Your task to perform on an android device: What's the weather today? Image 0: 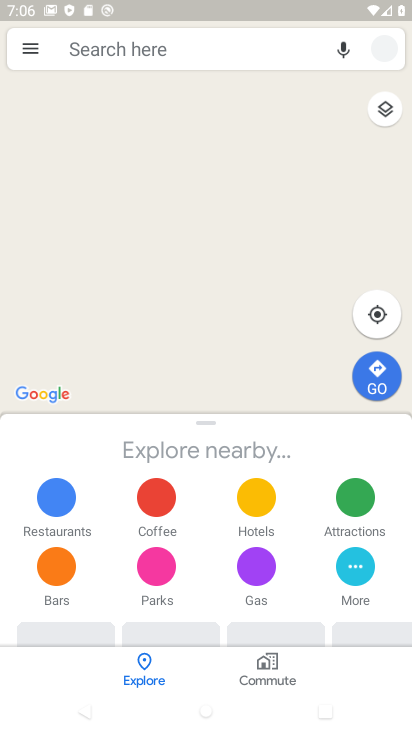
Step 0: press home button
Your task to perform on an android device: What's the weather today? Image 1: 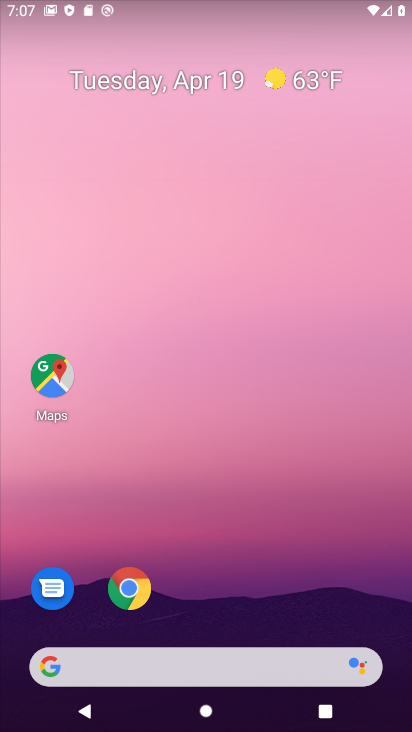
Step 1: click (236, 75)
Your task to perform on an android device: What's the weather today? Image 2: 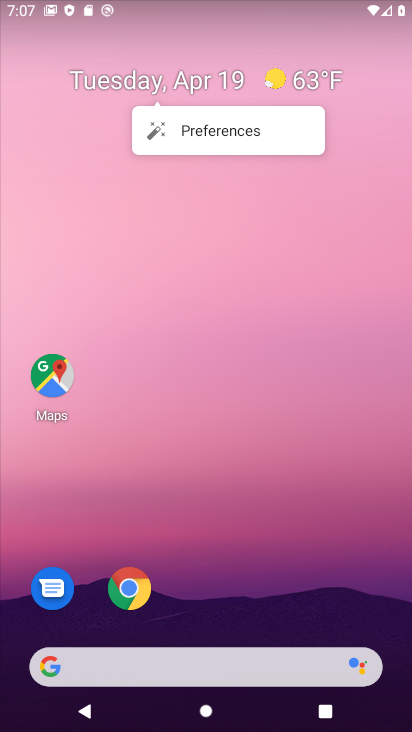
Step 2: click (305, 76)
Your task to perform on an android device: What's the weather today? Image 3: 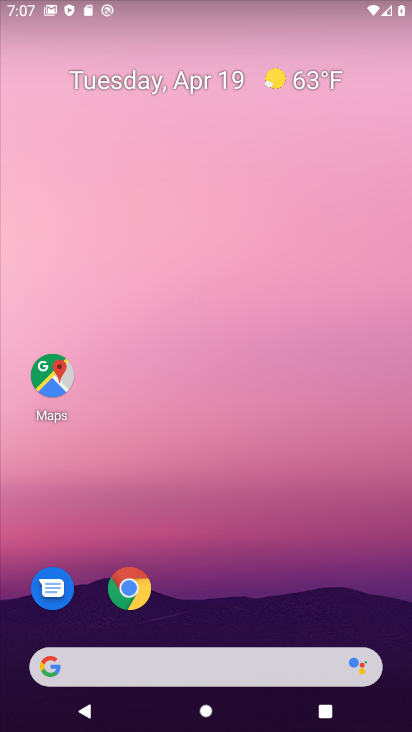
Step 3: click (276, 76)
Your task to perform on an android device: What's the weather today? Image 4: 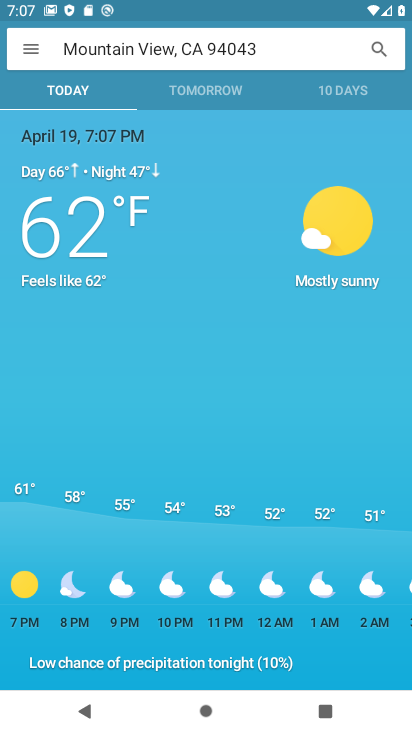
Step 4: task complete